Your task to perform on an android device: Go to privacy settings Image 0: 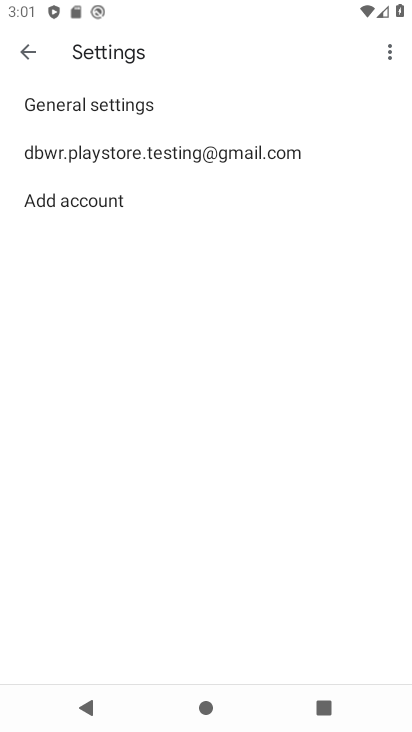
Step 0: press home button
Your task to perform on an android device: Go to privacy settings Image 1: 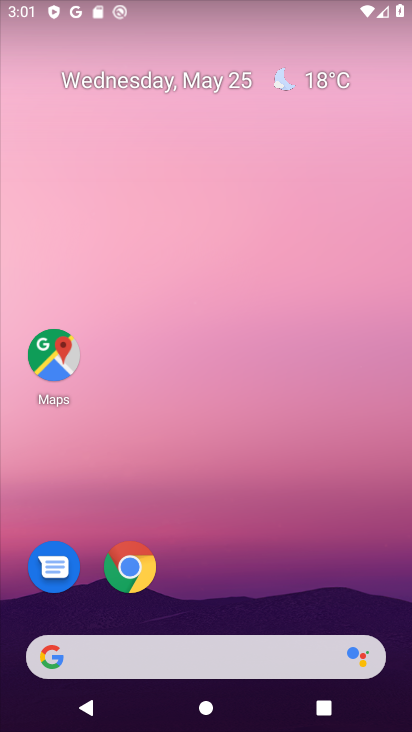
Step 1: drag from (349, 593) to (348, 95)
Your task to perform on an android device: Go to privacy settings Image 2: 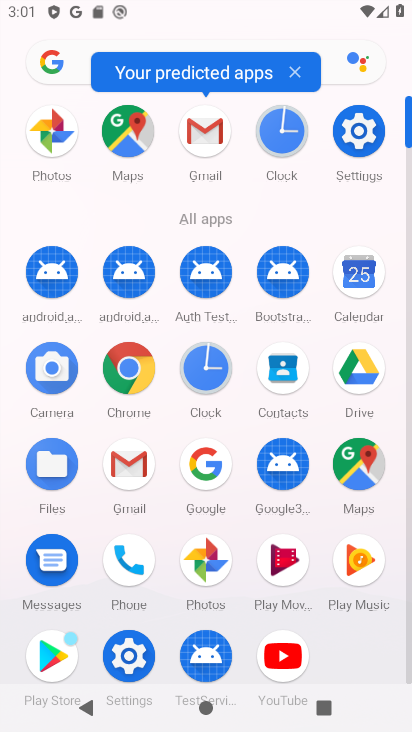
Step 2: click (365, 148)
Your task to perform on an android device: Go to privacy settings Image 3: 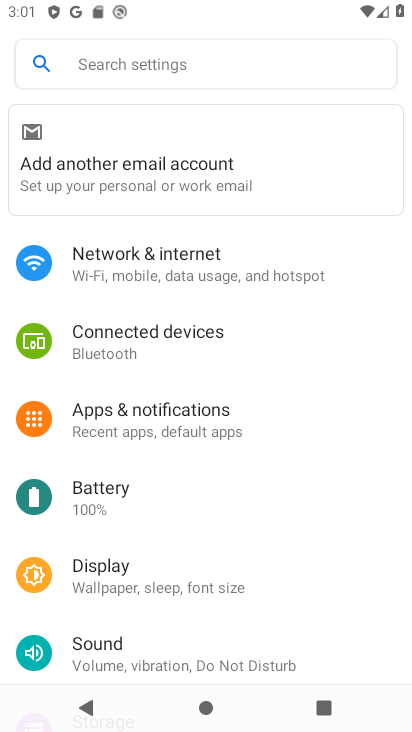
Step 3: drag from (320, 533) to (336, 386)
Your task to perform on an android device: Go to privacy settings Image 4: 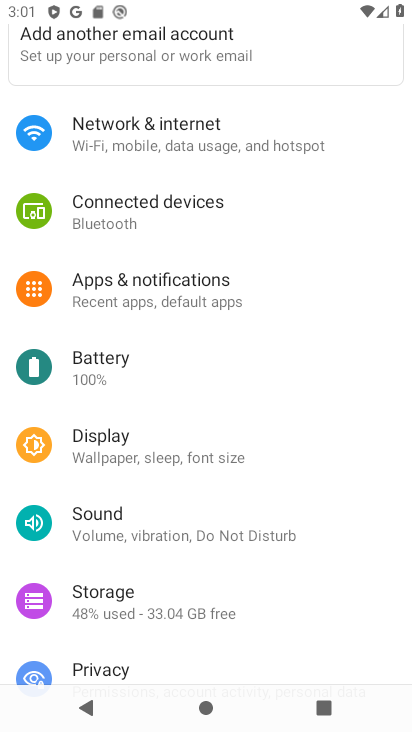
Step 4: drag from (361, 545) to (327, 285)
Your task to perform on an android device: Go to privacy settings Image 5: 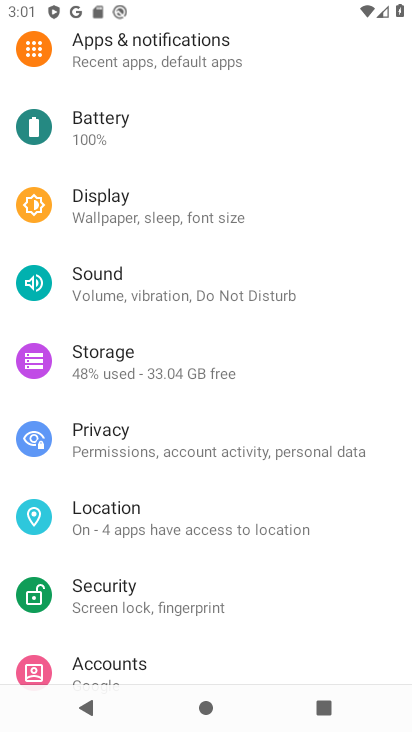
Step 5: drag from (308, 574) to (307, 327)
Your task to perform on an android device: Go to privacy settings Image 6: 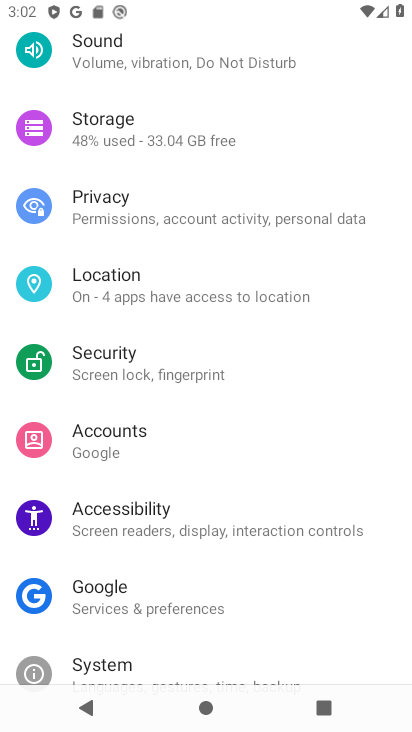
Step 6: click (229, 215)
Your task to perform on an android device: Go to privacy settings Image 7: 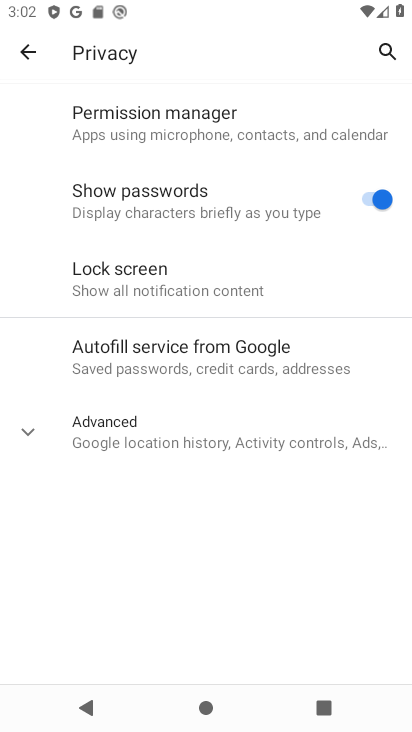
Step 7: task complete